Your task to perform on an android device: see sites visited before in the chrome app Image 0: 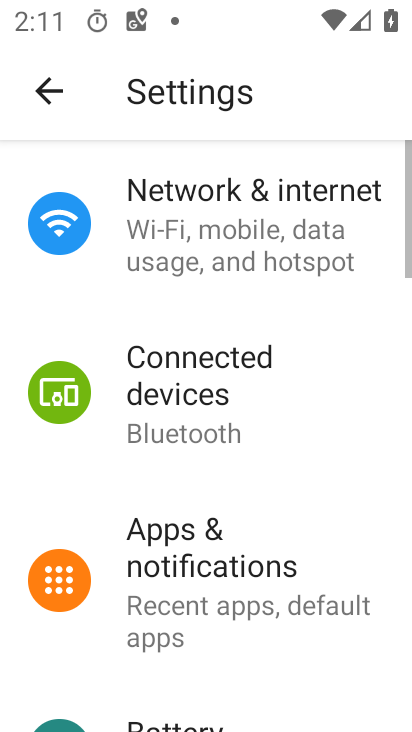
Step 0: press home button
Your task to perform on an android device: see sites visited before in the chrome app Image 1: 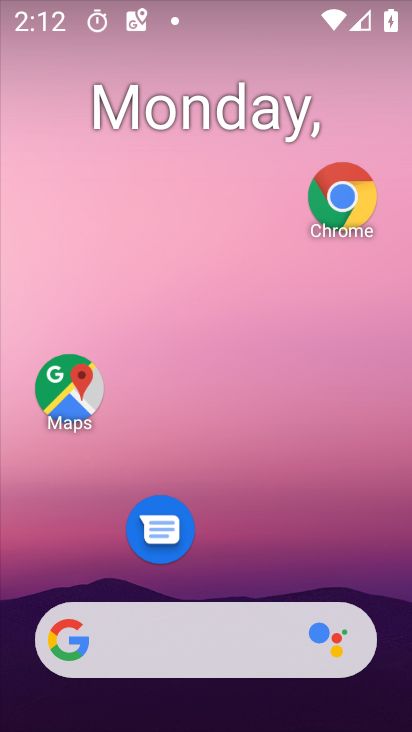
Step 1: click (356, 211)
Your task to perform on an android device: see sites visited before in the chrome app Image 2: 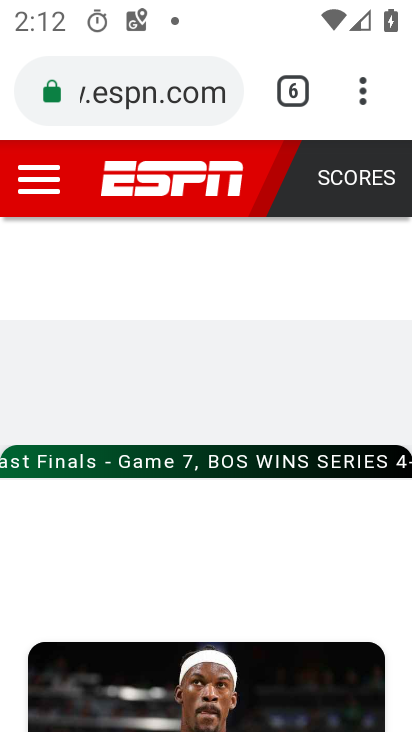
Step 2: click (368, 91)
Your task to perform on an android device: see sites visited before in the chrome app Image 3: 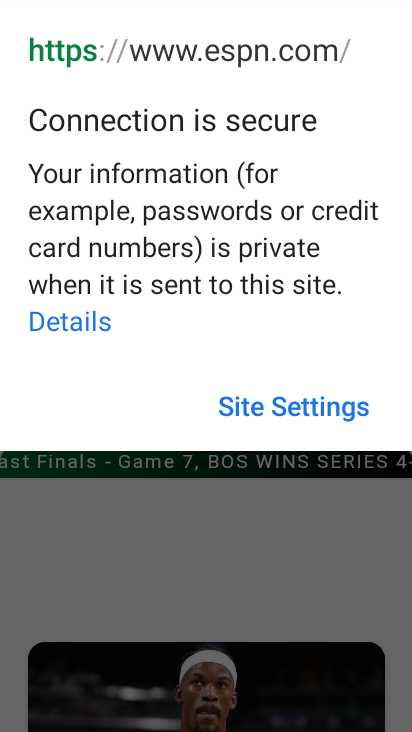
Step 3: click (258, 543)
Your task to perform on an android device: see sites visited before in the chrome app Image 4: 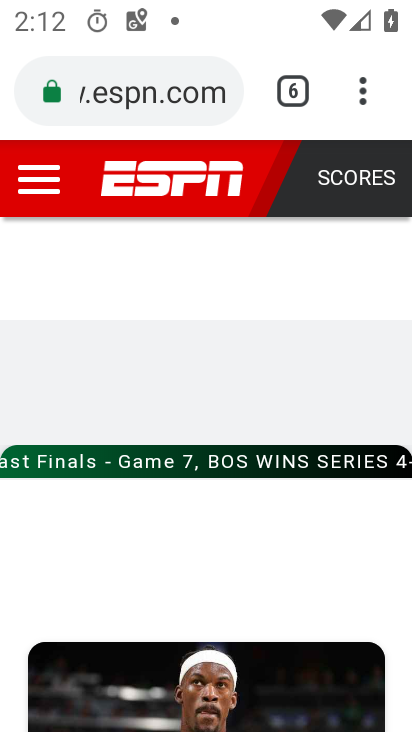
Step 4: task complete